Your task to perform on an android device: toggle wifi Image 0: 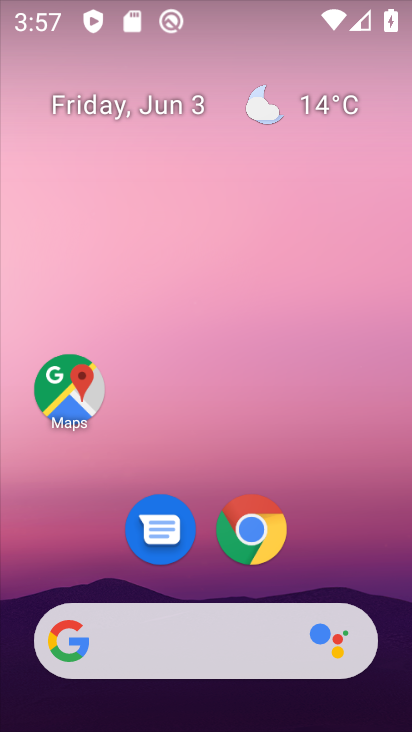
Step 0: press home button
Your task to perform on an android device: toggle wifi Image 1: 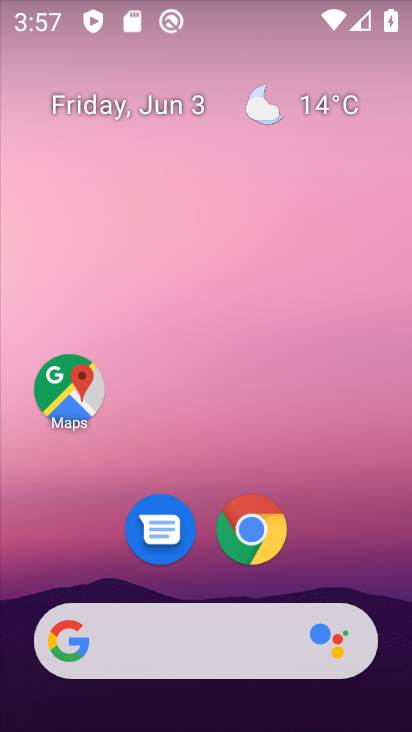
Step 1: drag from (210, 586) to (216, 27)
Your task to perform on an android device: toggle wifi Image 2: 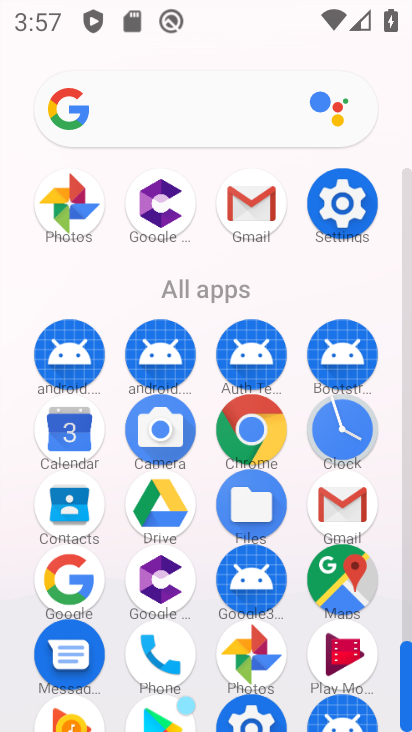
Step 2: click (341, 198)
Your task to perform on an android device: toggle wifi Image 3: 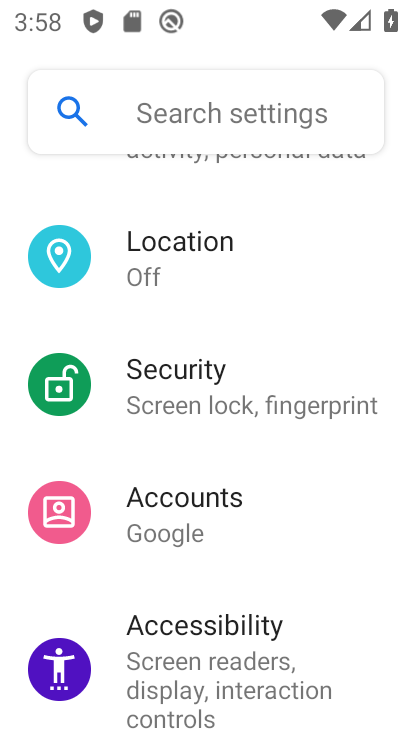
Step 3: drag from (201, 11) to (217, 429)
Your task to perform on an android device: toggle wifi Image 4: 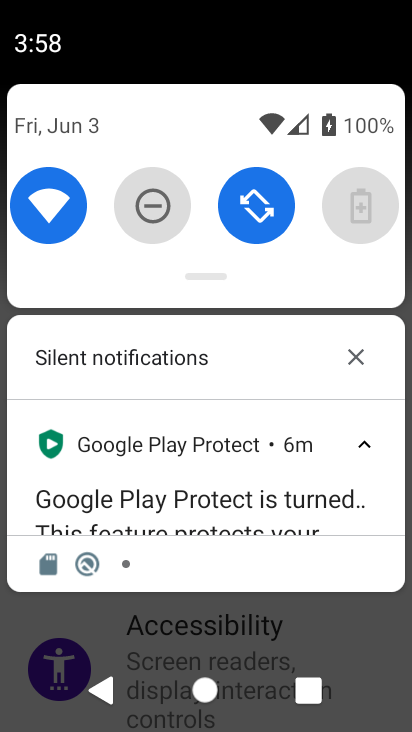
Step 4: click (51, 206)
Your task to perform on an android device: toggle wifi Image 5: 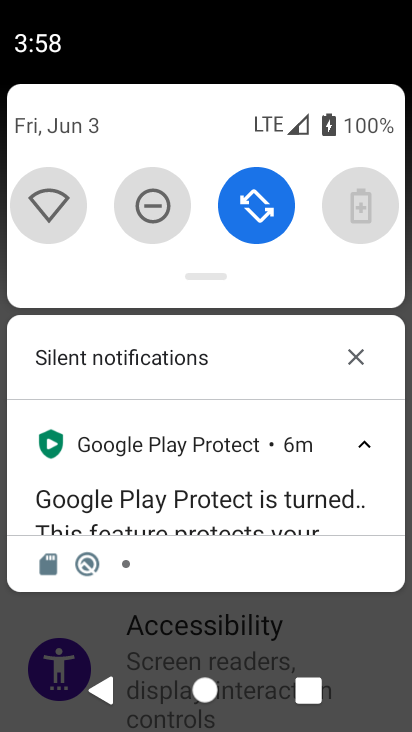
Step 5: task complete